Your task to perform on an android device: What's the weather today? Image 0: 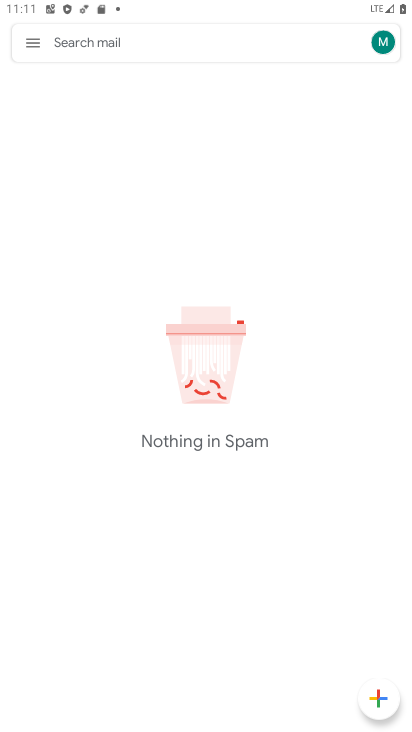
Step 0: click (243, 702)
Your task to perform on an android device: What's the weather today? Image 1: 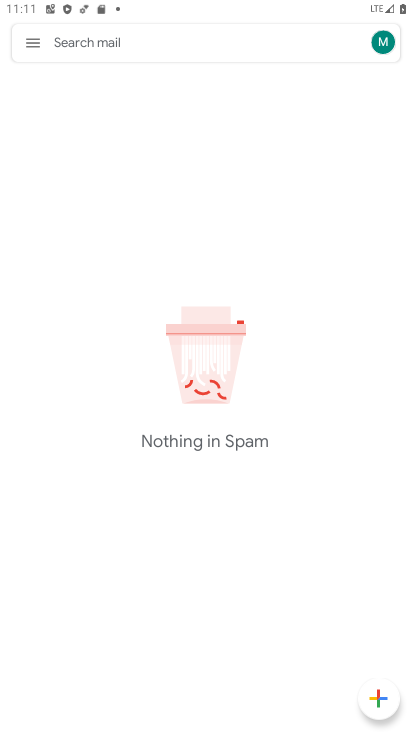
Step 1: press home button
Your task to perform on an android device: What's the weather today? Image 2: 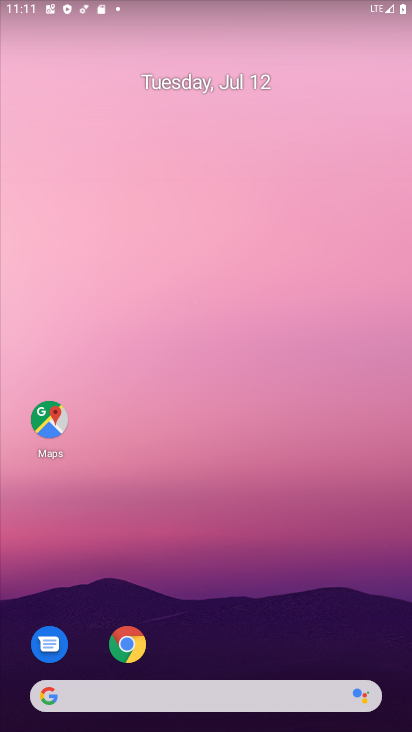
Step 2: click (271, 700)
Your task to perform on an android device: What's the weather today? Image 3: 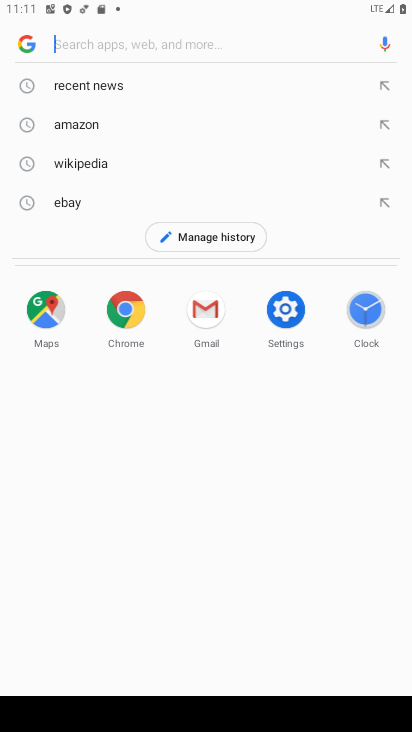
Step 3: type "What's the weather today?"
Your task to perform on an android device: What's the weather today? Image 4: 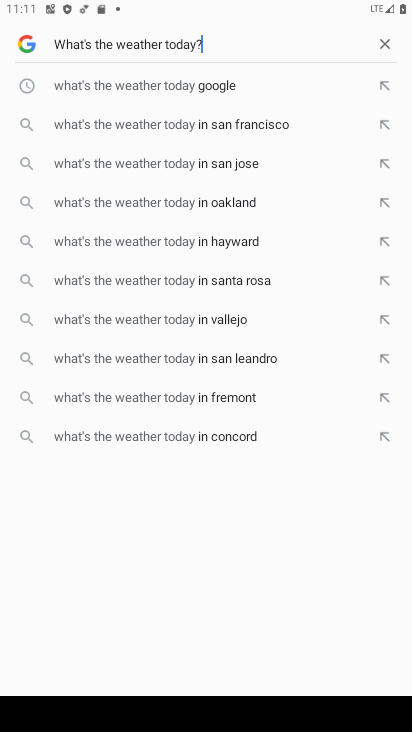
Step 4: click (296, 83)
Your task to perform on an android device: What's the weather today? Image 5: 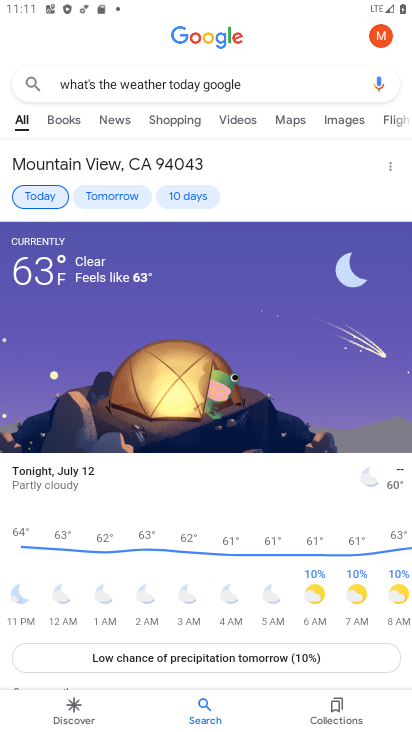
Step 5: task complete